Your task to perform on an android device: Go to Yahoo.com Image 0: 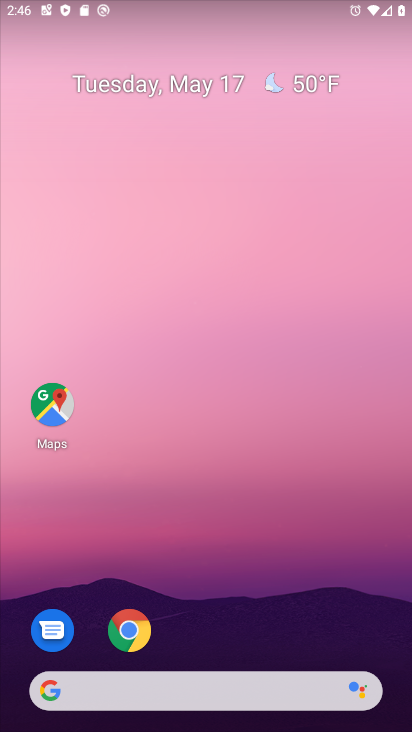
Step 0: click (129, 626)
Your task to perform on an android device: Go to Yahoo.com Image 1: 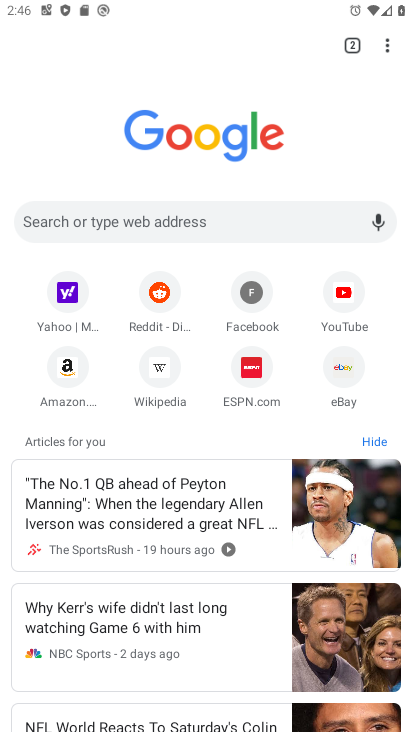
Step 1: click (67, 284)
Your task to perform on an android device: Go to Yahoo.com Image 2: 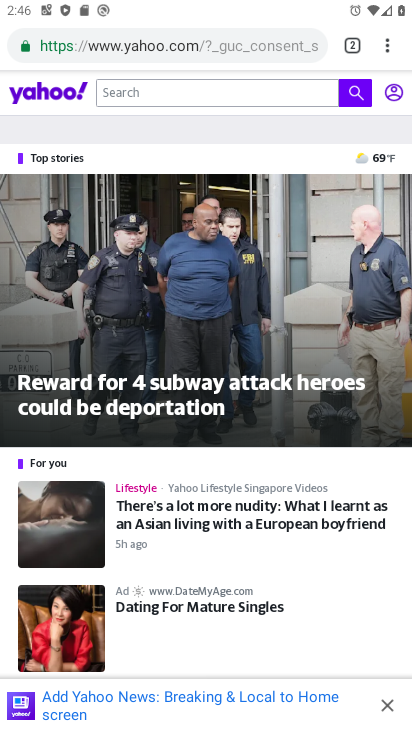
Step 2: task complete